Your task to perform on an android device: choose inbox layout in the gmail app Image 0: 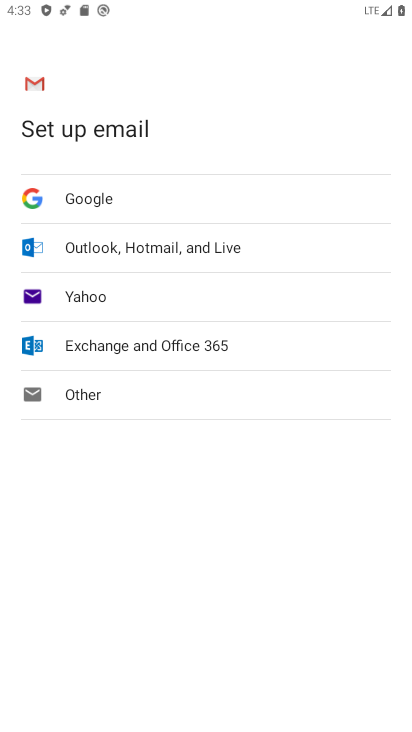
Step 0: press home button
Your task to perform on an android device: choose inbox layout in the gmail app Image 1: 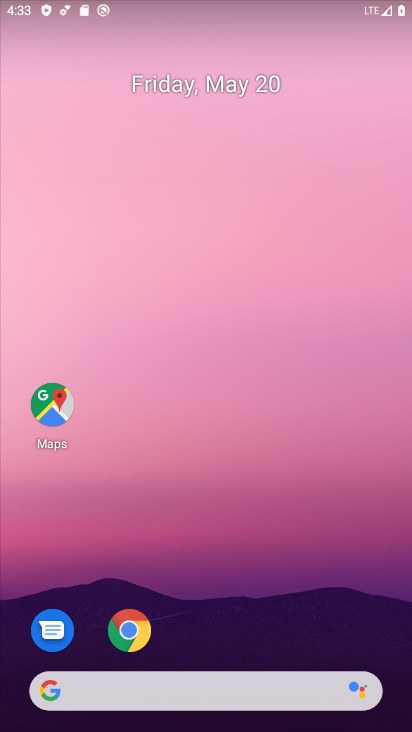
Step 1: drag from (221, 578) to (286, 43)
Your task to perform on an android device: choose inbox layout in the gmail app Image 2: 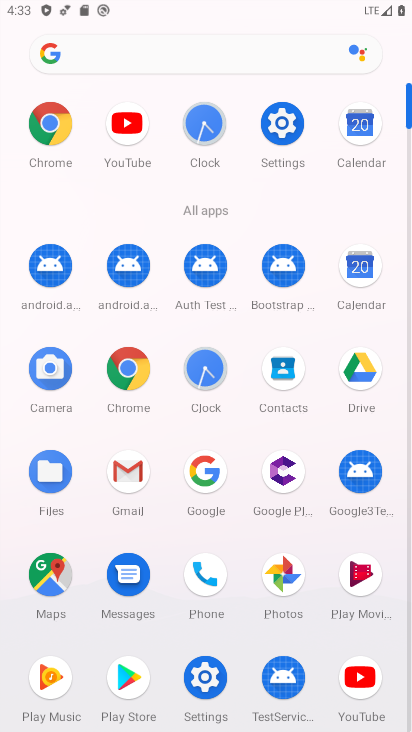
Step 2: click (128, 464)
Your task to perform on an android device: choose inbox layout in the gmail app Image 3: 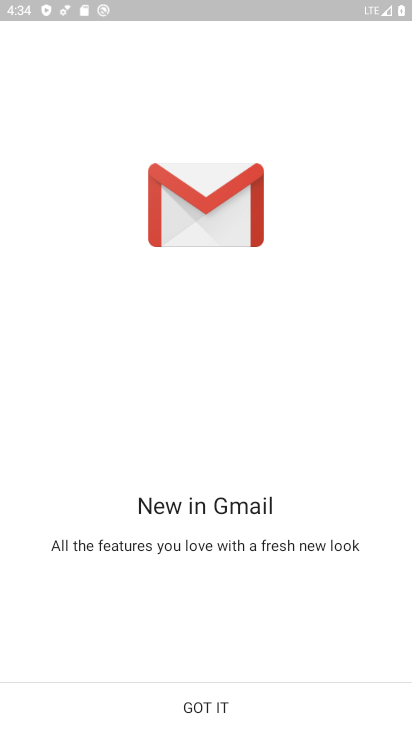
Step 3: click (213, 704)
Your task to perform on an android device: choose inbox layout in the gmail app Image 4: 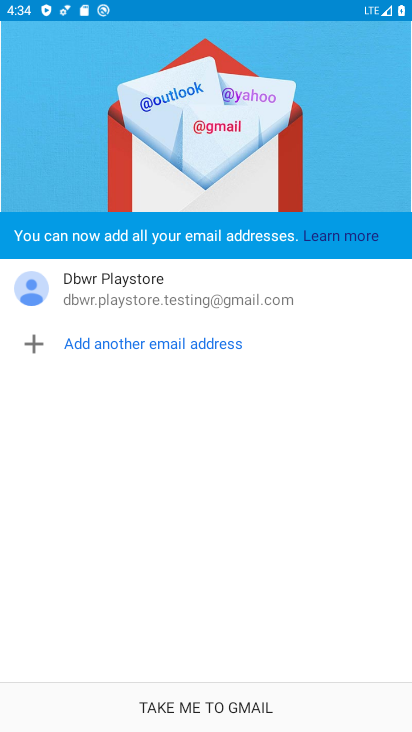
Step 4: click (211, 699)
Your task to perform on an android device: choose inbox layout in the gmail app Image 5: 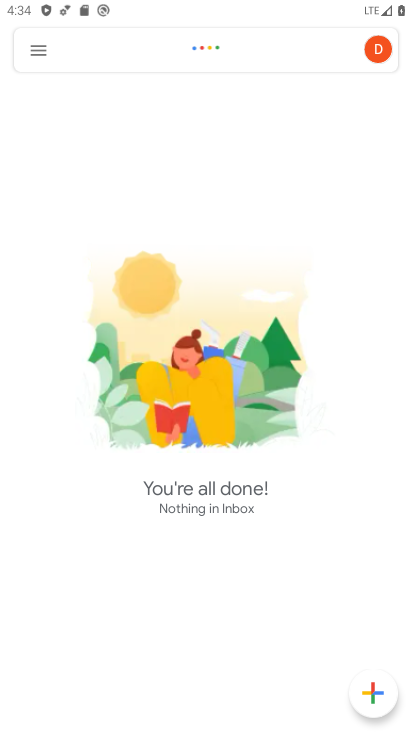
Step 5: click (36, 48)
Your task to perform on an android device: choose inbox layout in the gmail app Image 6: 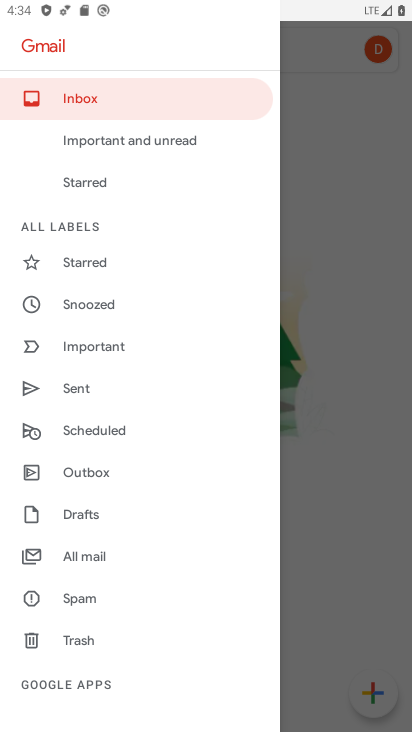
Step 6: drag from (115, 626) to (160, 338)
Your task to perform on an android device: choose inbox layout in the gmail app Image 7: 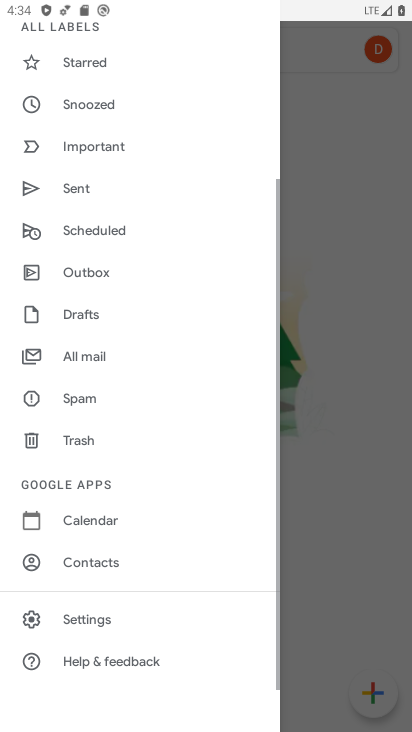
Step 7: click (122, 618)
Your task to perform on an android device: choose inbox layout in the gmail app Image 8: 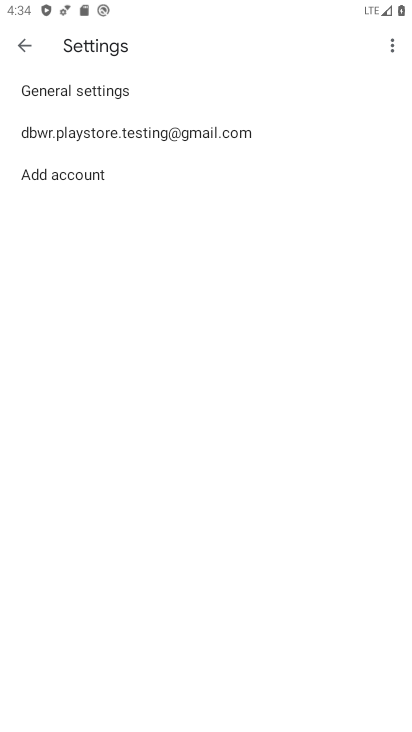
Step 8: click (177, 124)
Your task to perform on an android device: choose inbox layout in the gmail app Image 9: 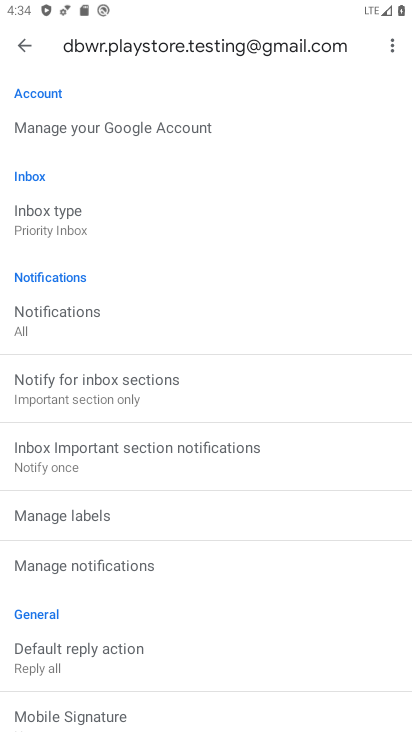
Step 9: click (75, 216)
Your task to perform on an android device: choose inbox layout in the gmail app Image 10: 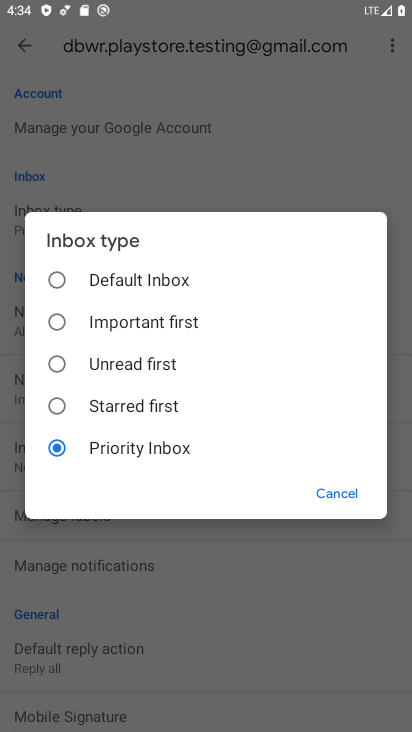
Step 10: click (64, 272)
Your task to perform on an android device: choose inbox layout in the gmail app Image 11: 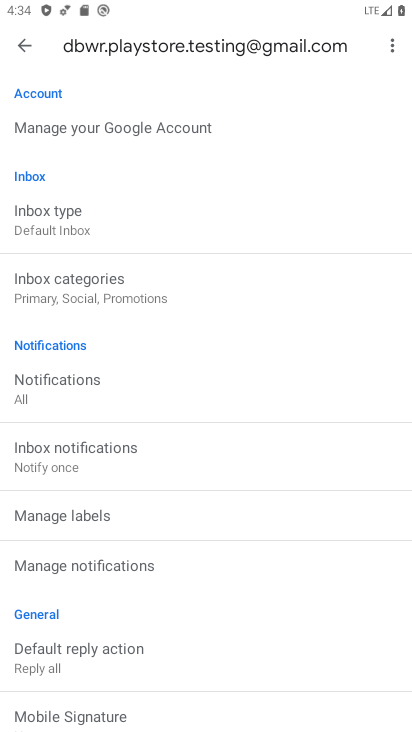
Step 11: task complete